Your task to perform on an android device: delete the emails in spam in the gmail app Image 0: 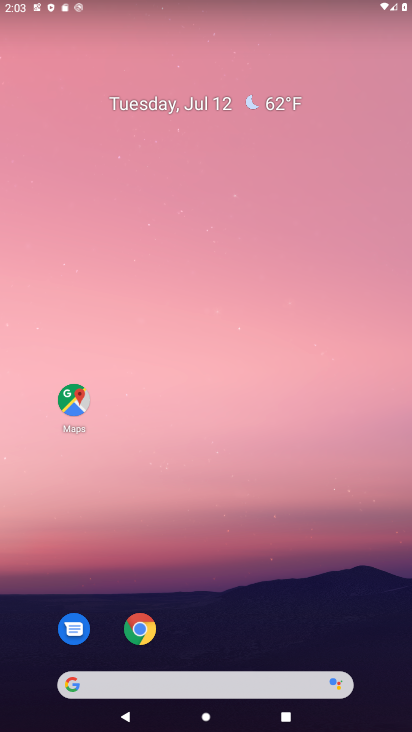
Step 0: drag from (208, 655) to (200, 30)
Your task to perform on an android device: delete the emails in spam in the gmail app Image 1: 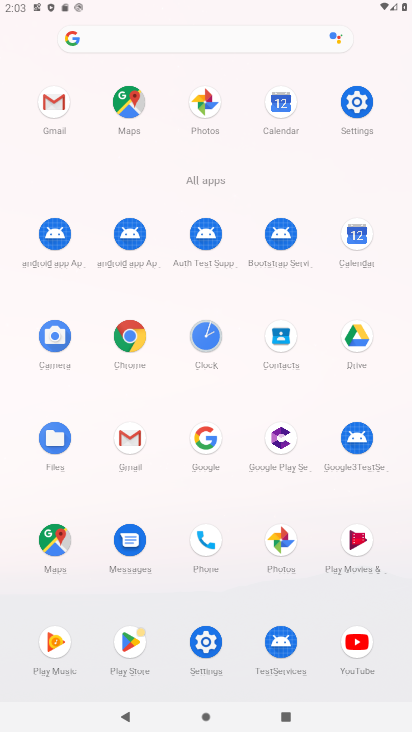
Step 1: click (129, 436)
Your task to perform on an android device: delete the emails in spam in the gmail app Image 2: 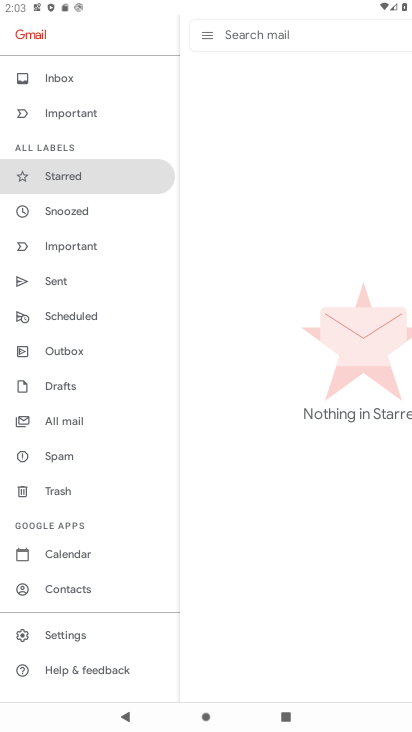
Step 2: click (62, 453)
Your task to perform on an android device: delete the emails in spam in the gmail app Image 3: 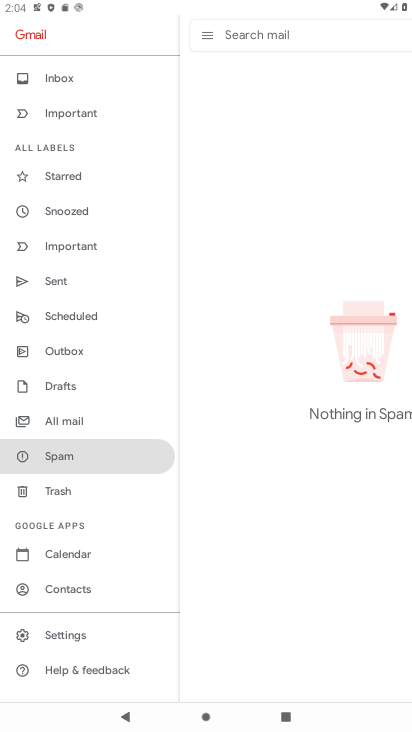
Step 3: task complete